Your task to perform on an android device: Open Amazon Image 0: 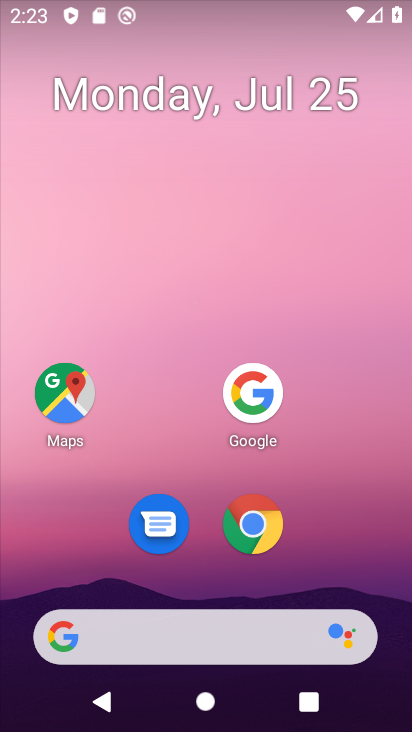
Step 0: press home button
Your task to perform on an android device: Open Amazon Image 1: 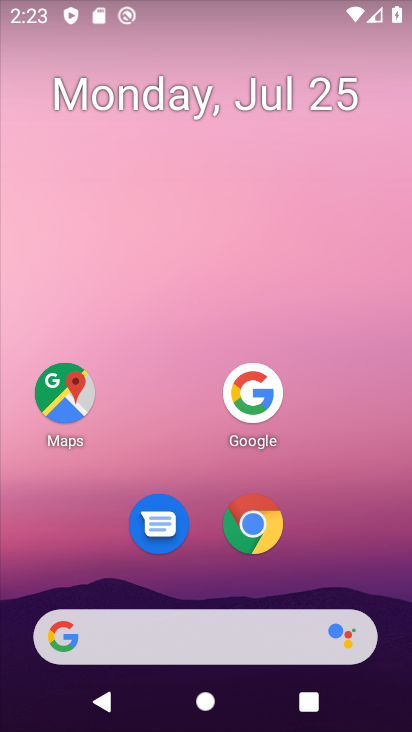
Step 1: click (253, 520)
Your task to perform on an android device: Open Amazon Image 2: 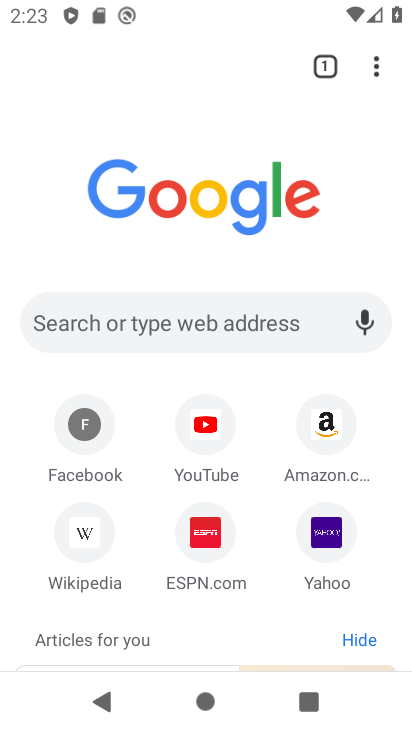
Step 2: click (318, 433)
Your task to perform on an android device: Open Amazon Image 3: 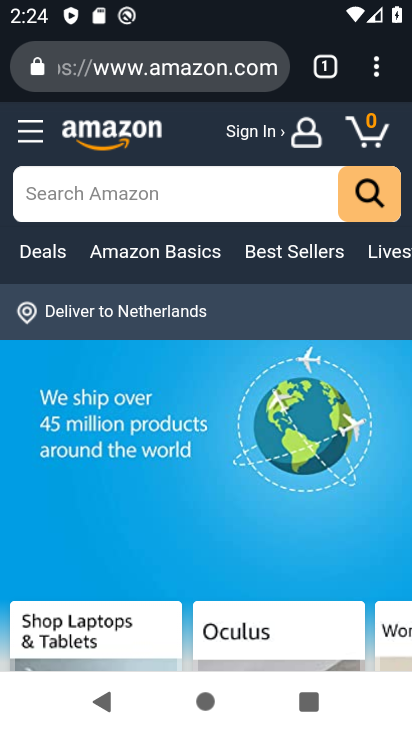
Step 3: task complete